Your task to perform on an android device: What's the weather today? Image 0: 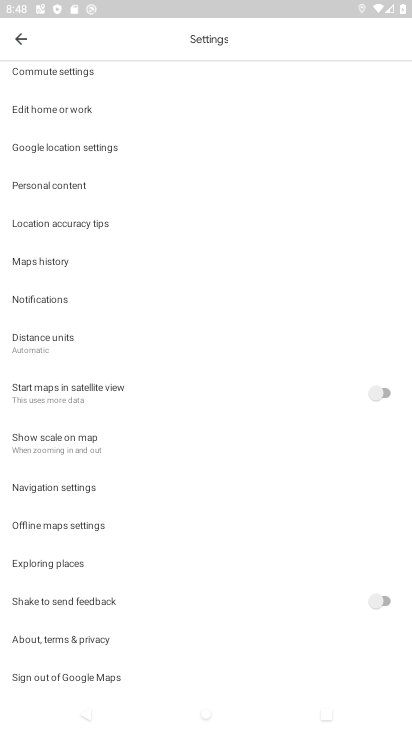
Step 0: press home button
Your task to perform on an android device: What's the weather today? Image 1: 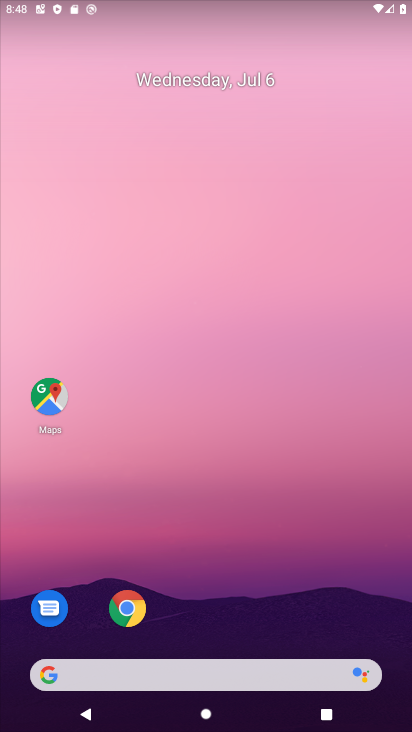
Step 1: drag from (187, 662) to (182, 198)
Your task to perform on an android device: What's the weather today? Image 2: 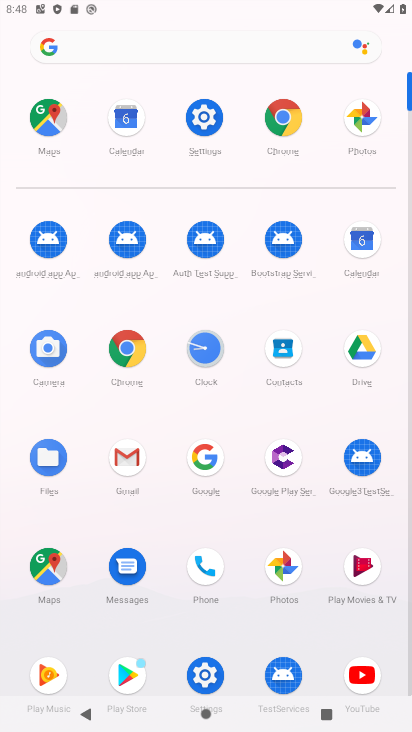
Step 2: click (203, 461)
Your task to perform on an android device: What's the weather today? Image 3: 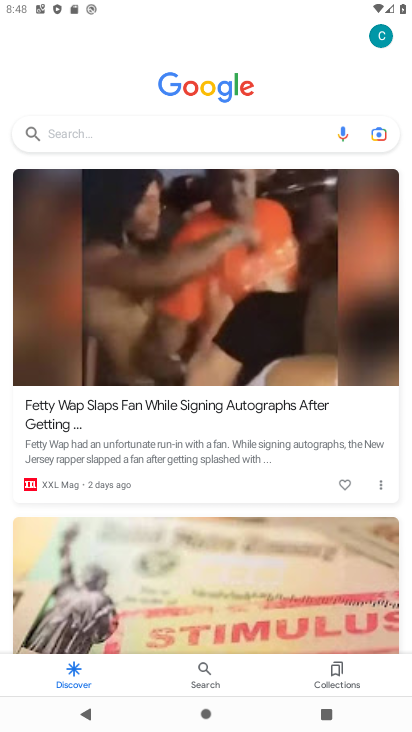
Step 3: click (118, 132)
Your task to perform on an android device: What's the weather today? Image 4: 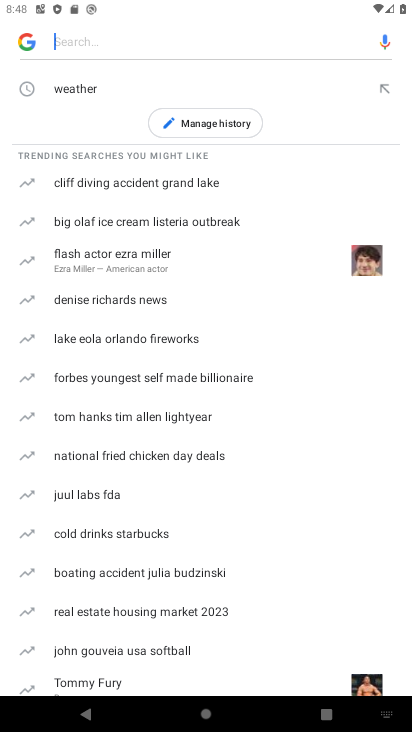
Step 4: click (74, 87)
Your task to perform on an android device: What's the weather today? Image 5: 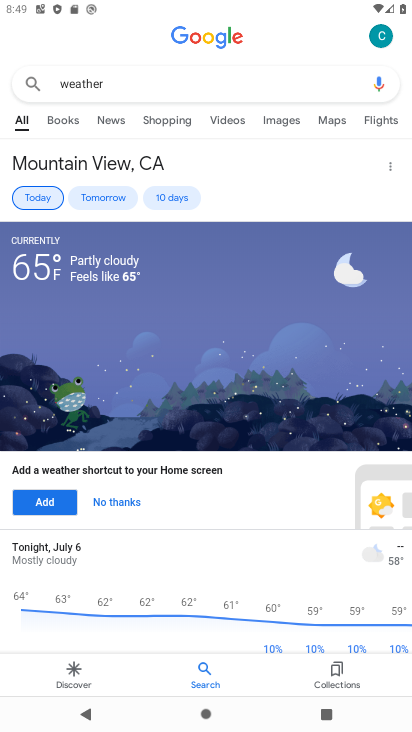
Step 5: task complete